Your task to perform on an android device: Clear the cart on newegg.com. Add "rayovac triple a" to the cart on newegg.com Image 0: 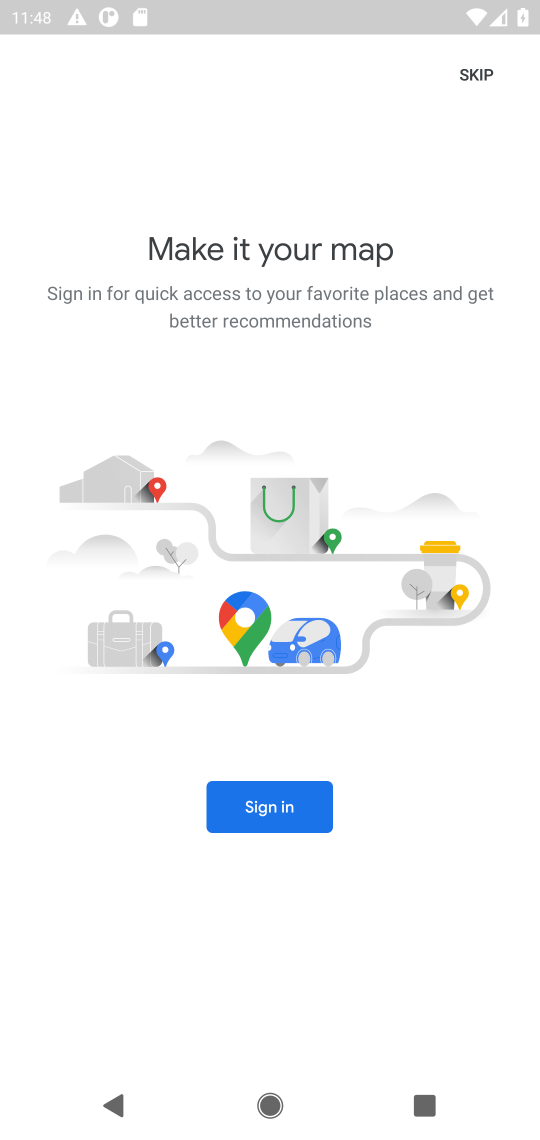
Step 0: press home button
Your task to perform on an android device: Clear the cart on newegg.com. Add "rayovac triple a" to the cart on newegg.com Image 1: 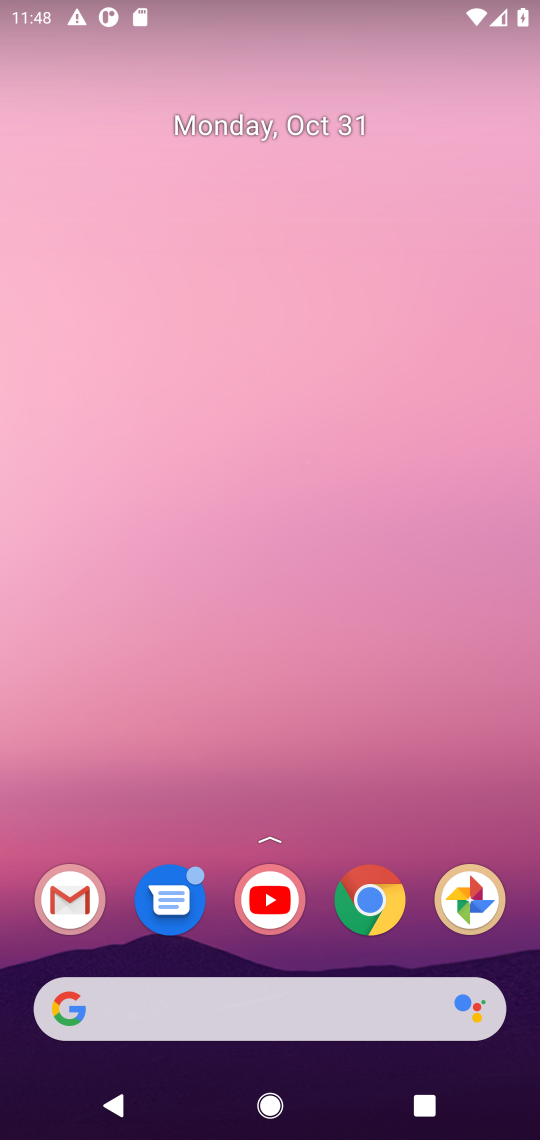
Step 1: click (366, 899)
Your task to perform on an android device: Clear the cart on newegg.com. Add "rayovac triple a" to the cart on newegg.com Image 2: 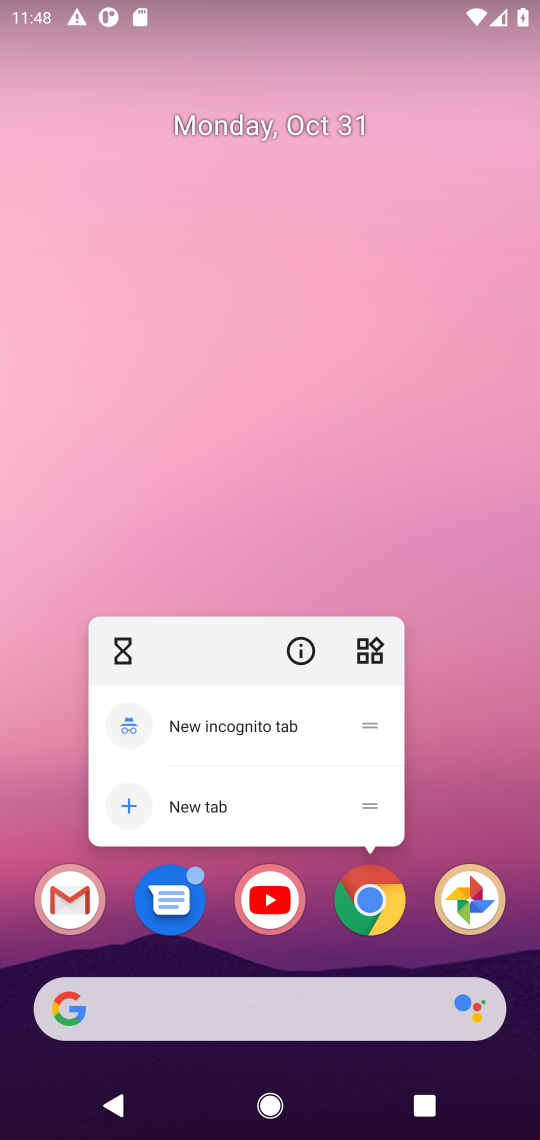
Step 2: click (366, 899)
Your task to perform on an android device: Clear the cart on newegg.com. Add "rayovac triple a" to the cart on newegg.com Image 3: 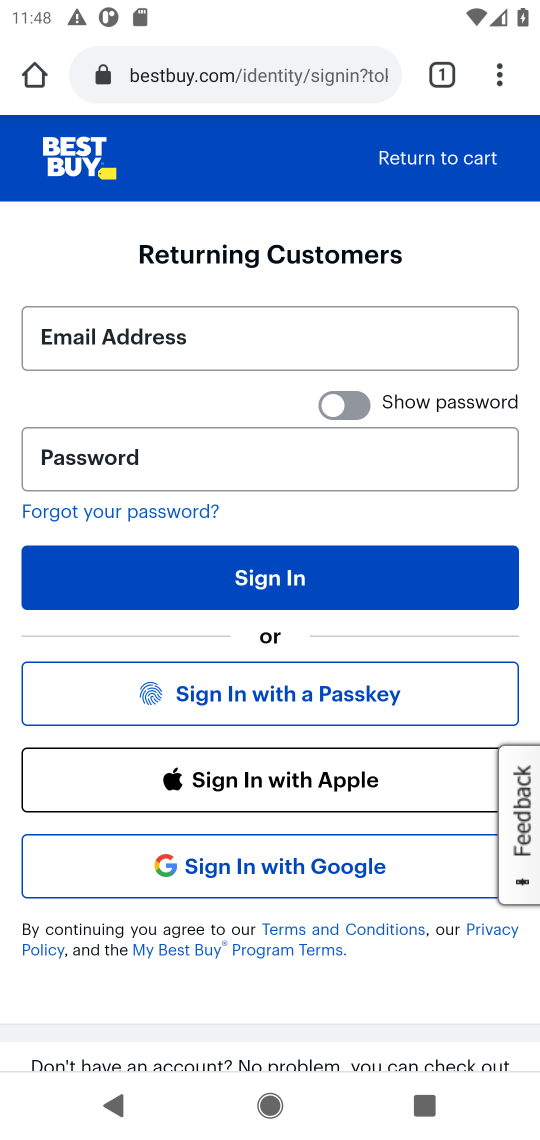
Step 3: click (237, 78)
Your task to perform on an android device: Clear the cart on newegg.com. Add "rayovac triple a" to the cart on newegg.com Image 4: 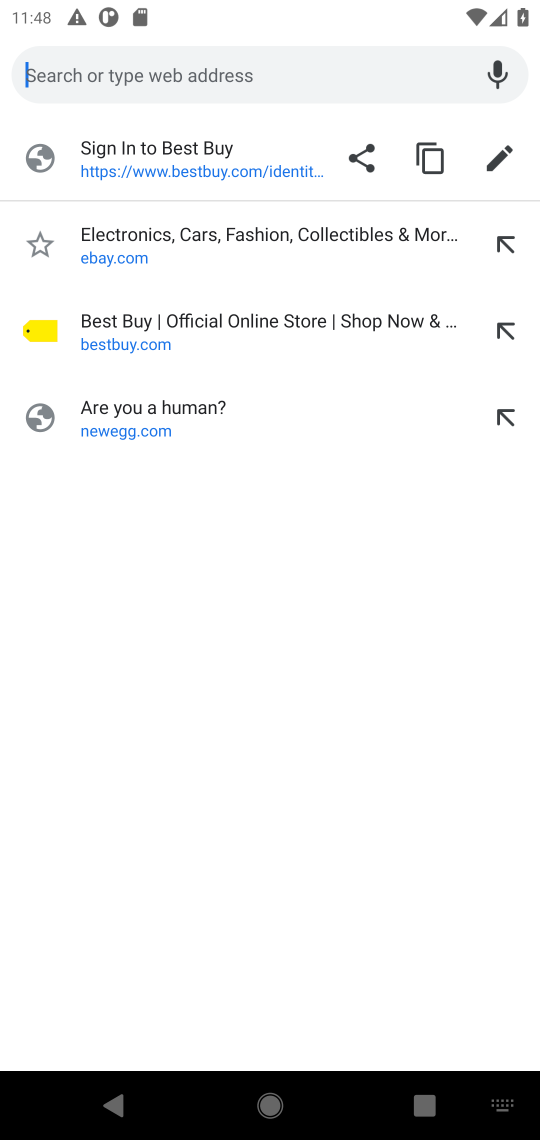
Step 4: press enter
Your task to perform on an android device: Clear the cart on newegg.com. Add "rayovac triple a" to the cart on newegg.com Image 5: 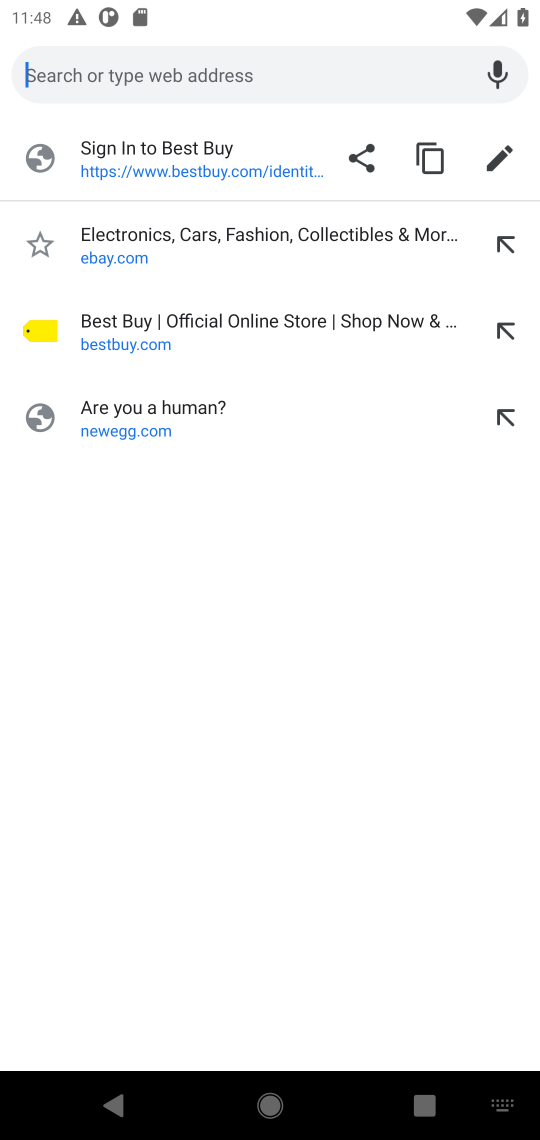
Step 5: type "newegg.com"
Your task to perform on an android device: Clear the cart on newegg.com. Add "rayovac triple a" to the cart on newegg.com Image 6: 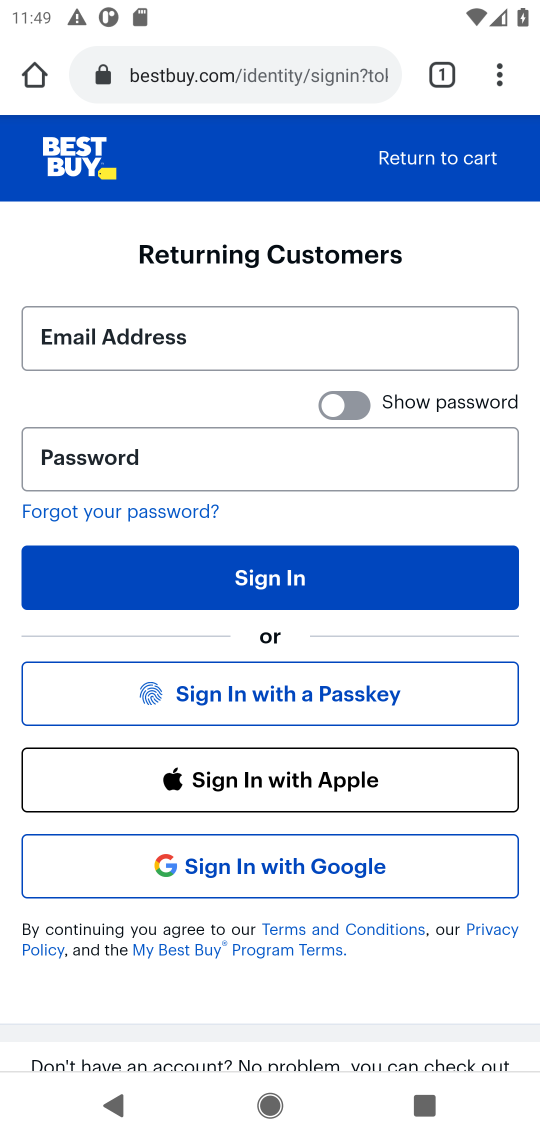
Step 6: type "newegg.com"
Your task to perform on an android device: Clear the cart on newegg.com. Add "rayovac triple a" to the cart on newegg.com Image 7: 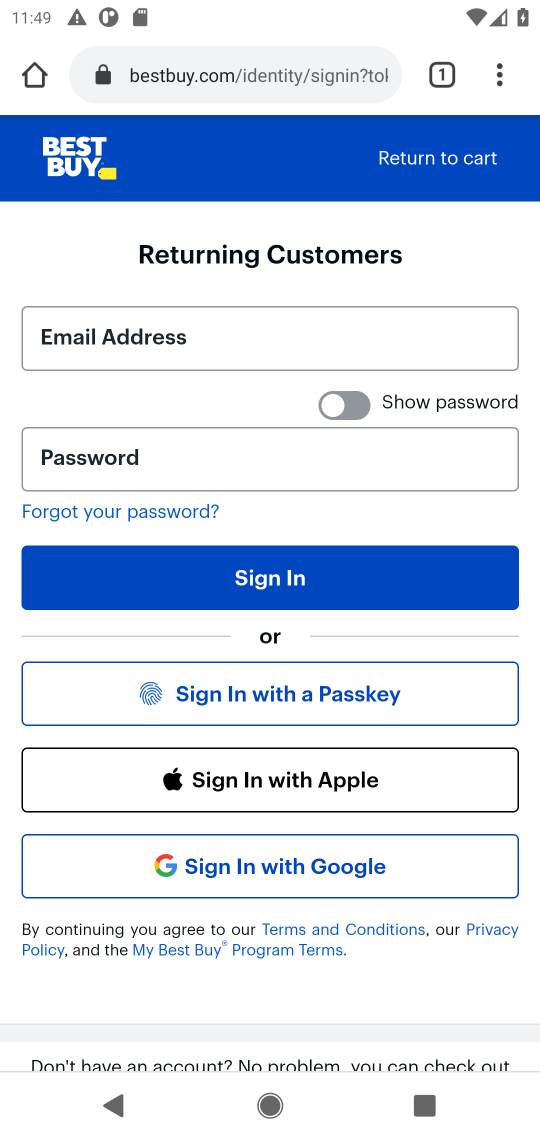
Step 7: click (185, 78)
Your task to perform on an android device: Clear the cart on newegg.com. Add "rayovac triple a" to the cart on newegg.com Image 8: 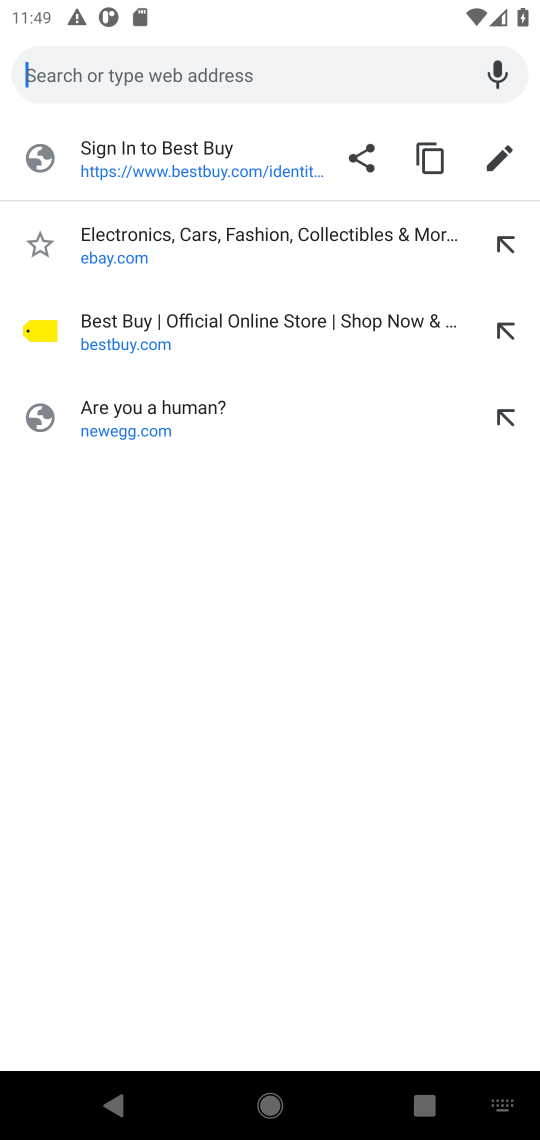
Step 8: type "newegg.com"
Your task to perform on an android device: Clear the cart on newegg.com. Add "rayovac triple a" to the cart on newegg.com Image 9: 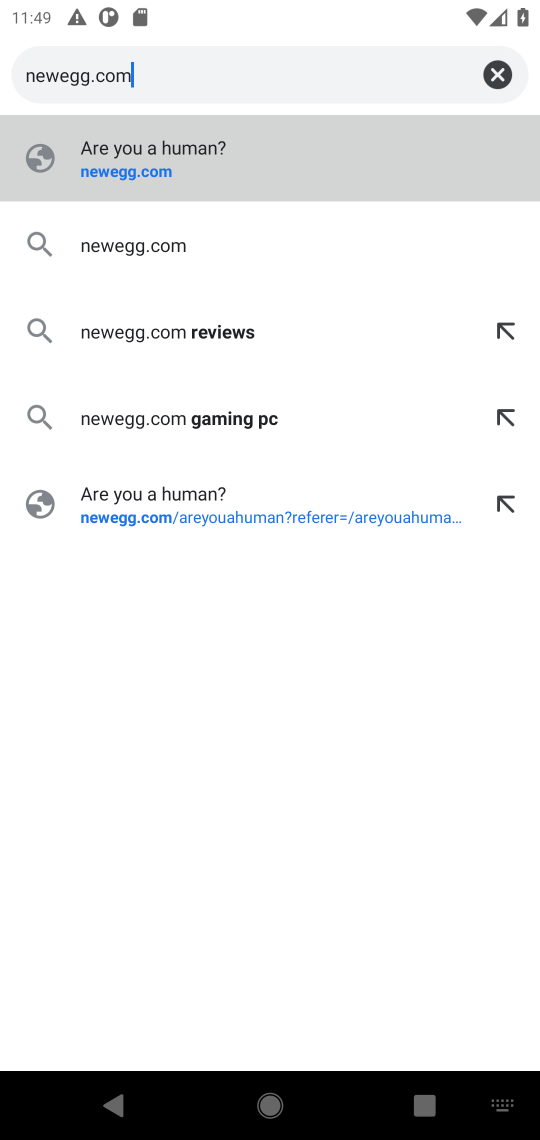
Step 9: press enter
Your task to perform on an android device: Clear the cart on newegg.com. Add "rayovac triple a" to the cart on newegg.com Image 10: 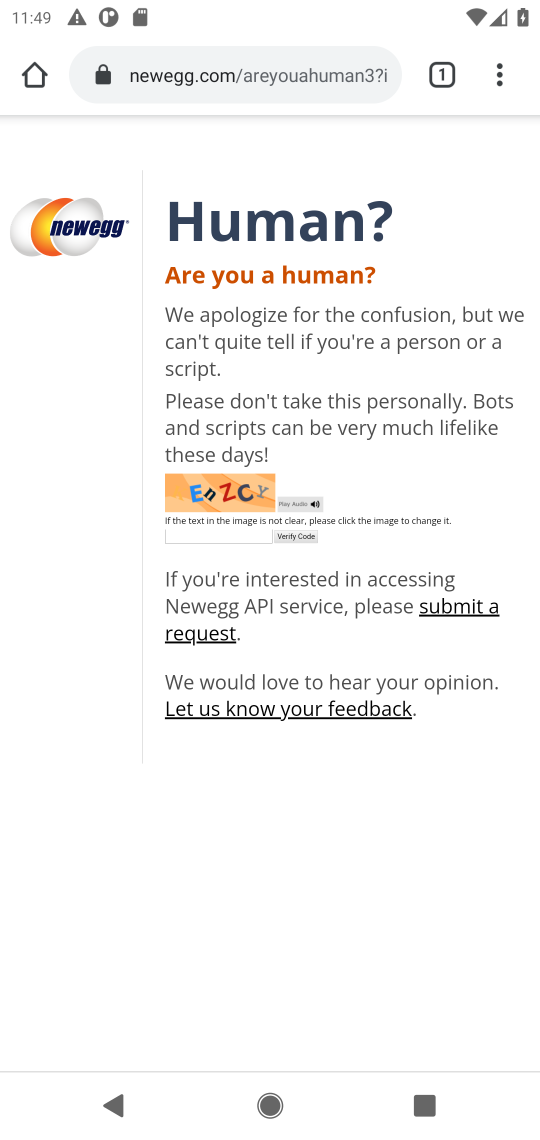
Step 10: click (197, 539)
Your task to perform on an android device: Clear the cart on newegg.com. Add "rayovac triple a" to the cart on newegg.com Image 11: 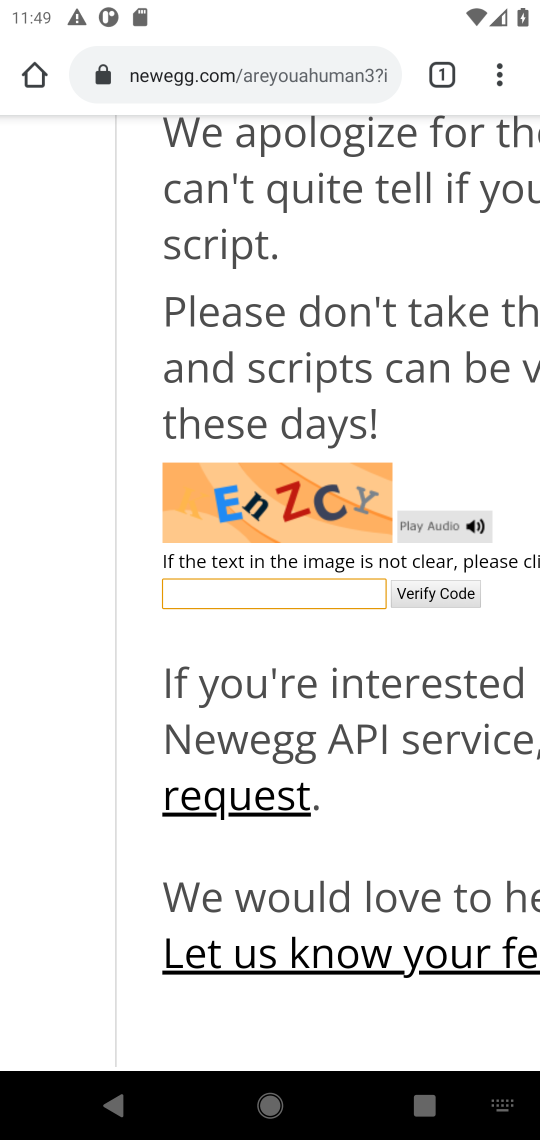
Step 11: click (260, 591)
Your task to perform on an android device: Clear the cart on newegg.com. Add "rayovac triple a" to the cart on newegg.com Image 12: 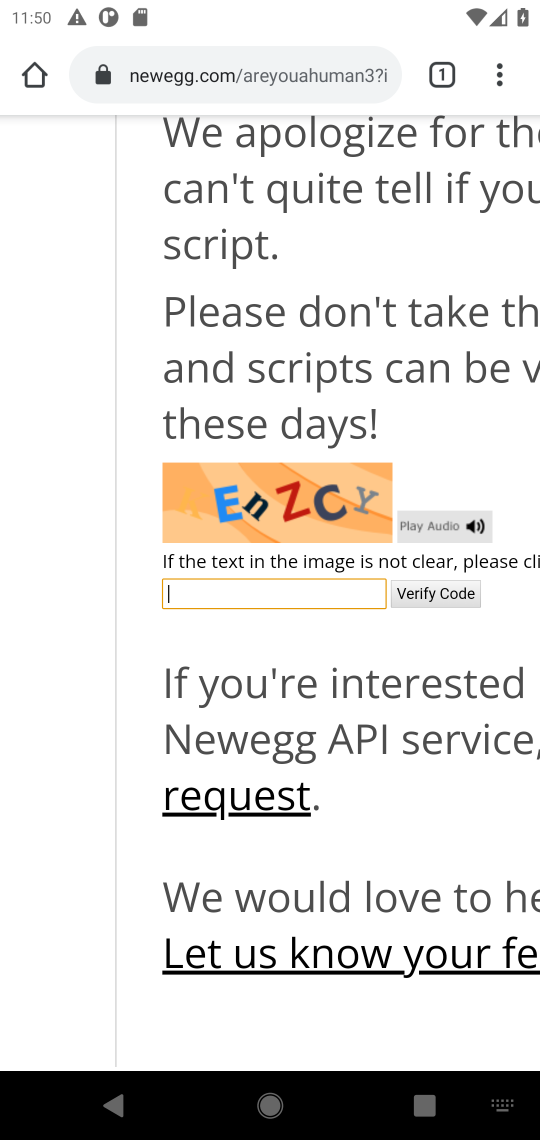
Step 12: type "EnZCY"
Your task to perform on an android device: Clear the cart on newegg.com. Add "rayovac triple a" to the cart on newegg.com Image 13: 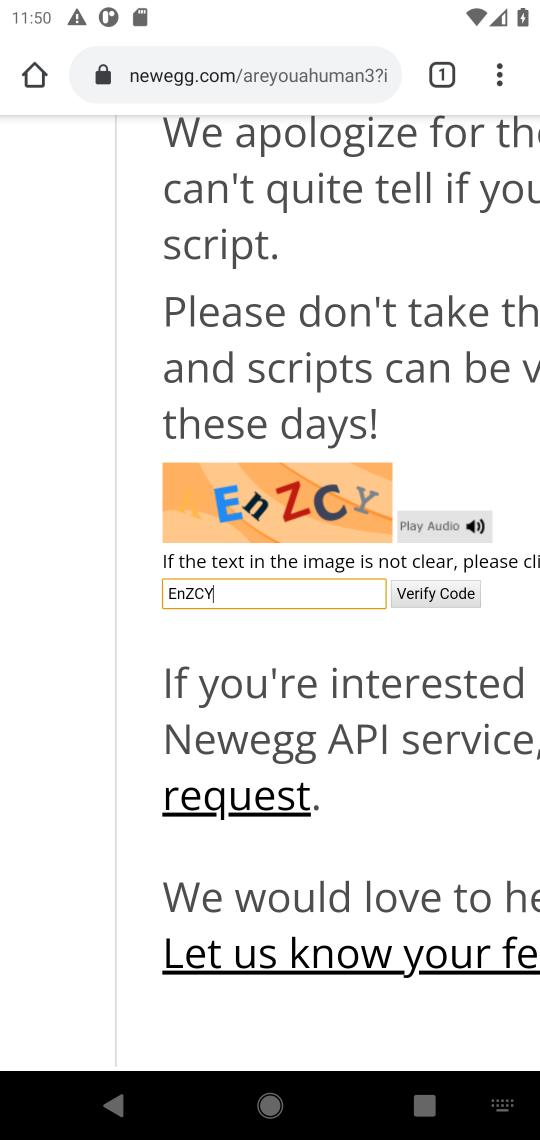
Step 13: click (447, 598)
Your task to perform on an android device: Clear the cart on newegg.com. Add "rayovac triple a" to the cart on newegg.com Image 14: 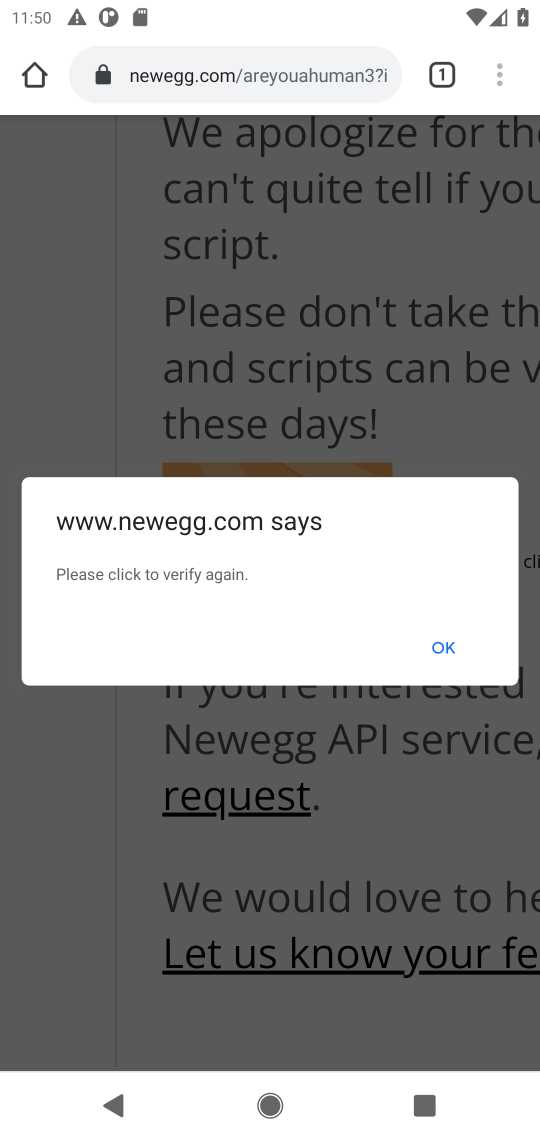
Step 14: click (441, 650)
Your task to perform on an android device: Clear the cart on newegg.com. Add "rayovac triple a" to the cart on newegg.com Image 15: 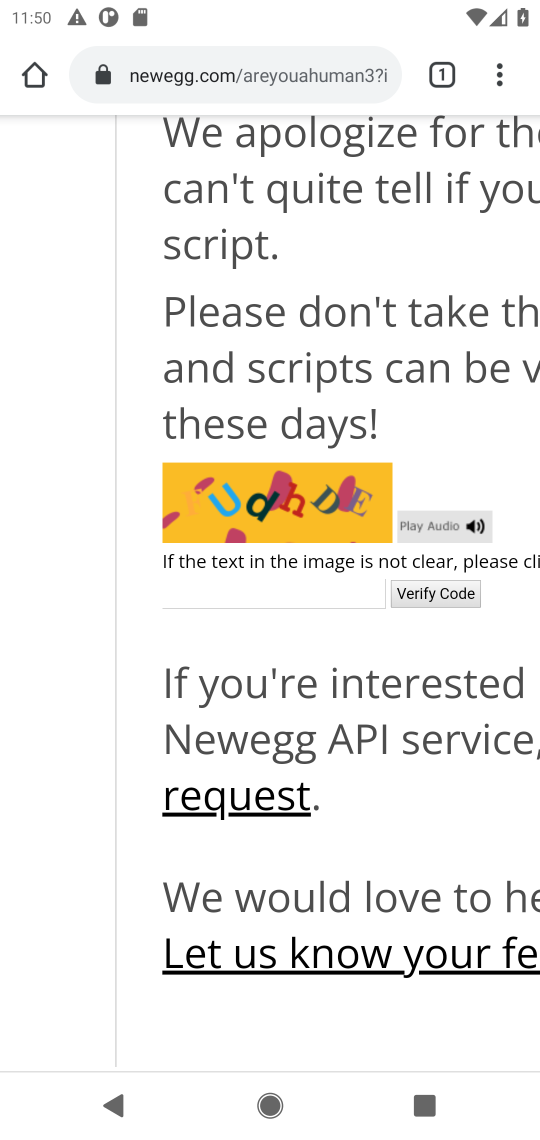
Step 15: click (211, 595)
Your task to perform on an android device: Clear the cart on newegg.com. Add "rayovac triple a" to the cart on newegg.com Image 16: 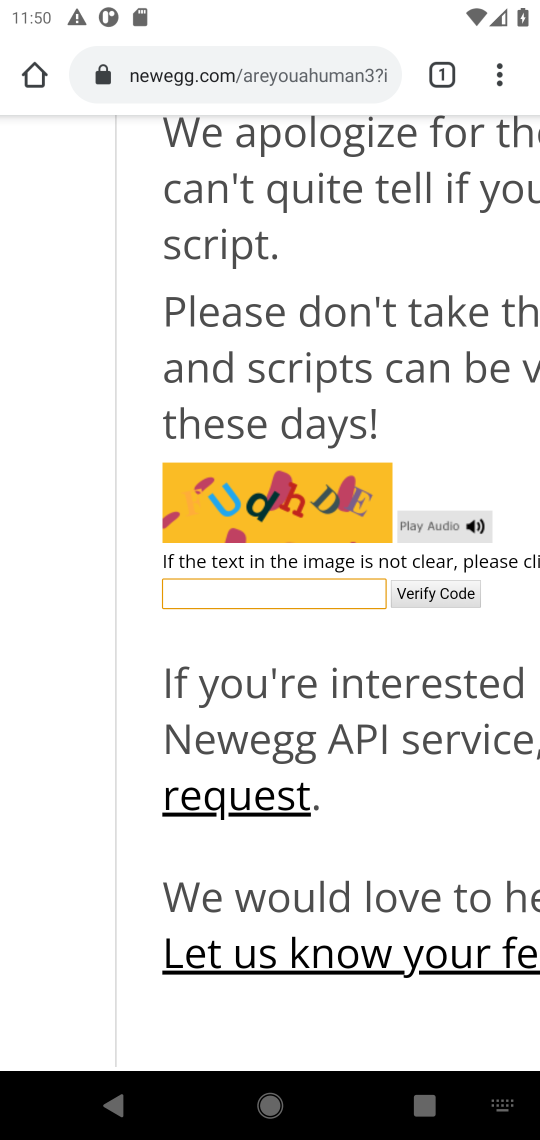
Step 16: type "UdhDE"
Your task to perform on an android device: Clear the cart on newegg.com. Add "rayovac triple a" to the cart on newegg.com Image 17: 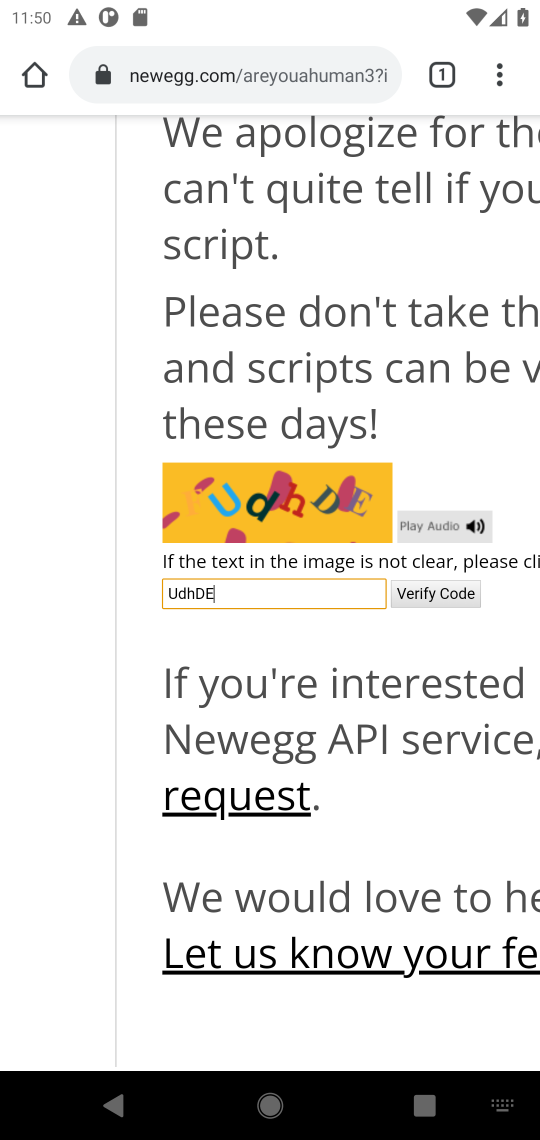
Step 17: press enter
Your task to perform on an android device: Clear the cart on newegg.com. Add "rayovac triple a" to the cart on newegg.com Image 18: 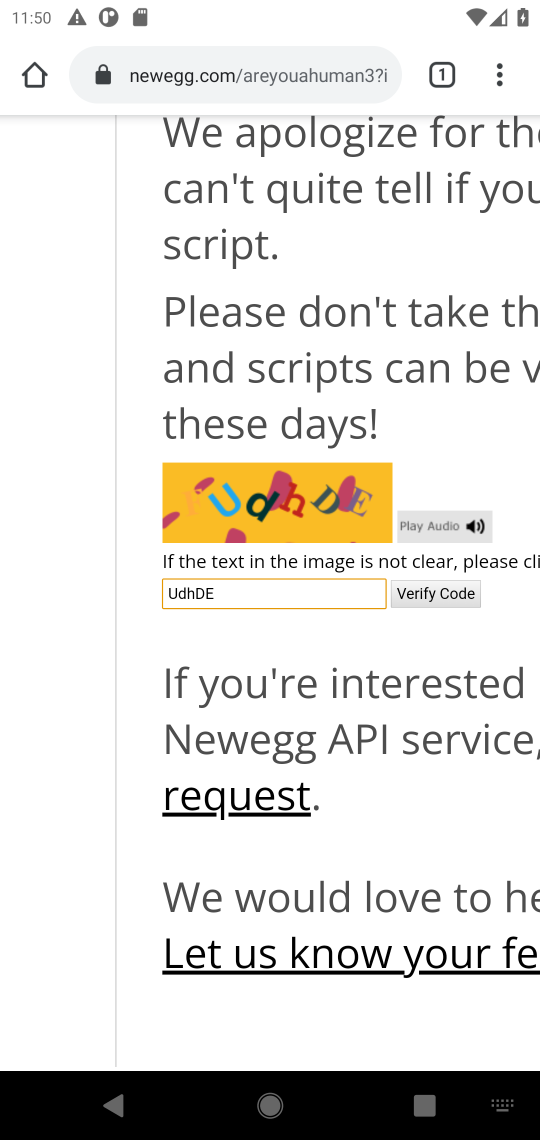
Step 18: click (434, 591)
Your task to perform on an android device: Clear the cart on newegg.com. Add "rayovac triple a" to the cart on newegg.com Image 19: 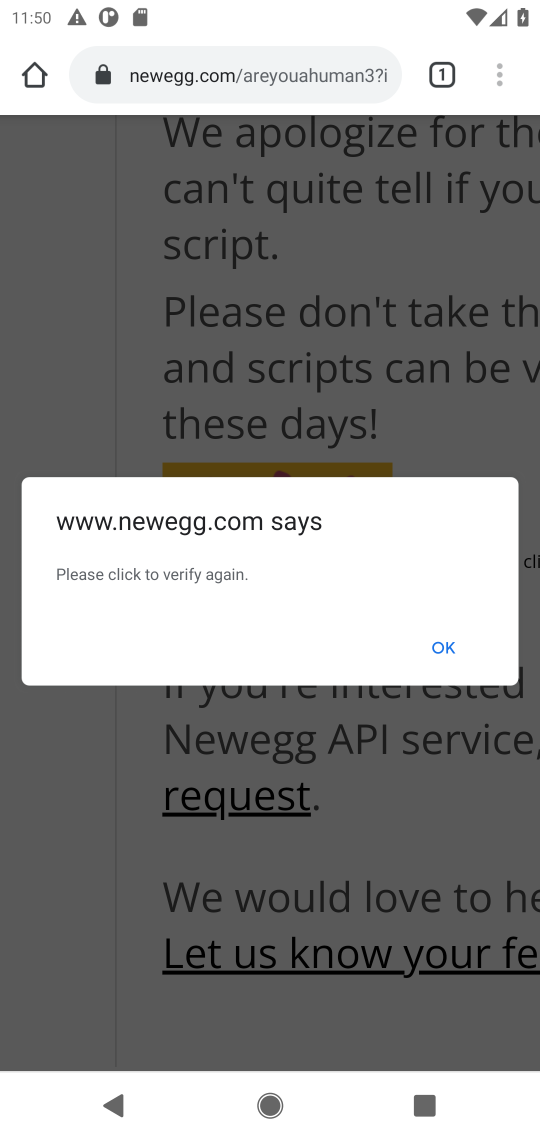
Step 19: click (440, 644)
Your task to perform on an android device: Clear the cart on newegg.com. Add "rayovac triple a" to the cart on newegg.com Image 20: 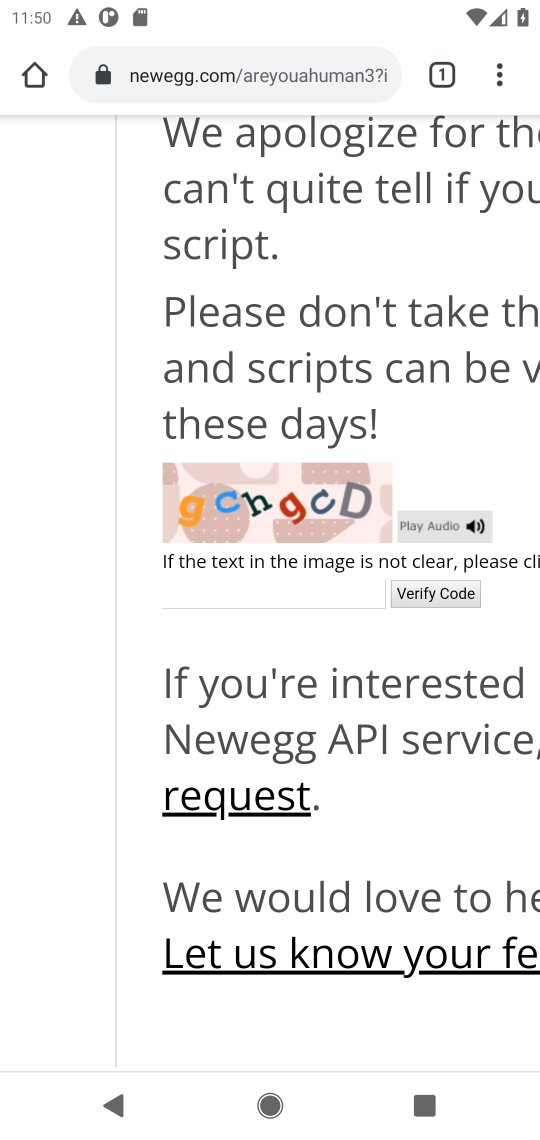
Step 20: task complete